Your task to perform on an android device: Show me popular videos on Youtube Image 0: 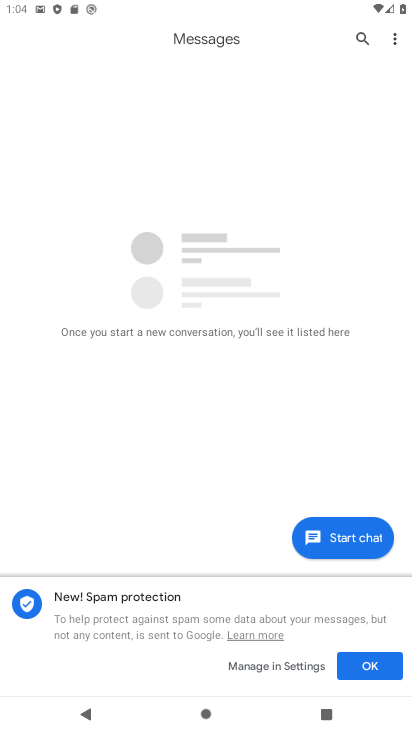
Step 0: press home button
Your task to perform on an android device: Show me popular videos on Youtube Image 1: 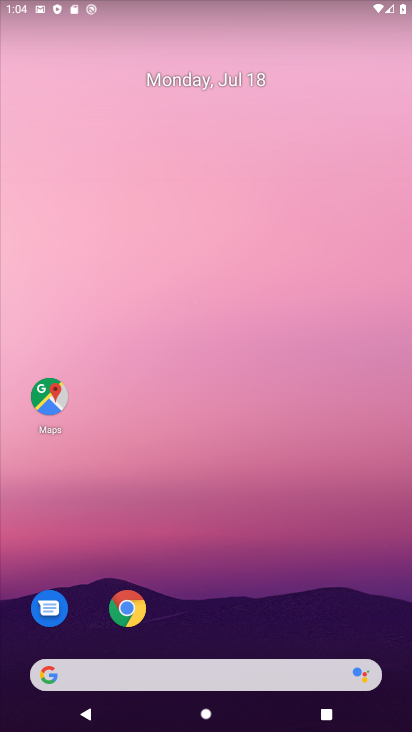
Step 1: drag from (247, 696) to (242, 219)
Your task to perform on an android device: Show me popular videos on Youtube Image 2: 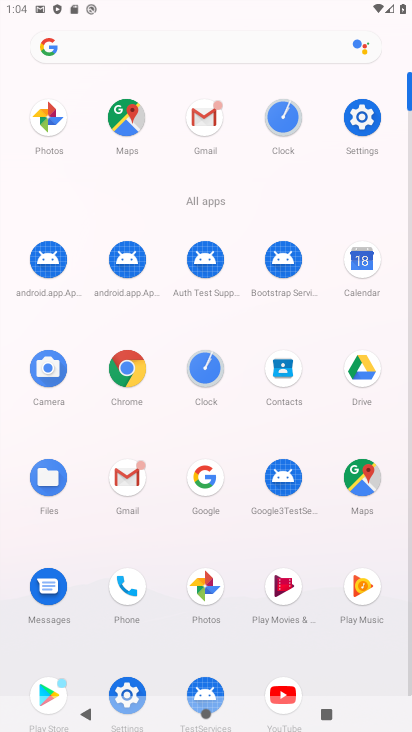
Step 2: click (275, 687)
Your task to perform on an android device: Show me popular videos on Youtube Image 3: 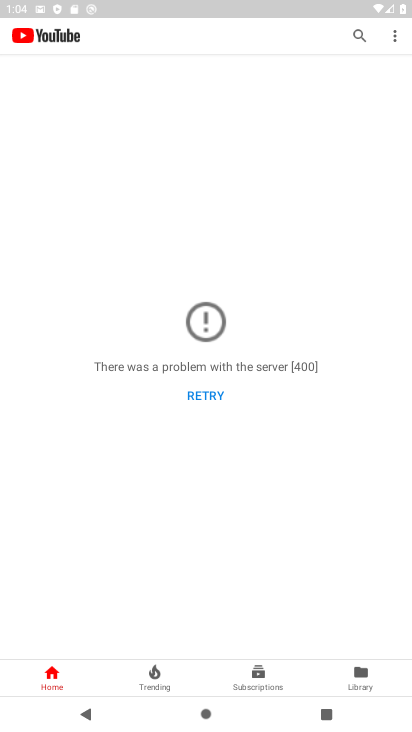
Step 3: click (204, 392)
Your task to perform on an android device: Show me popular videos on Youtube Image 4: 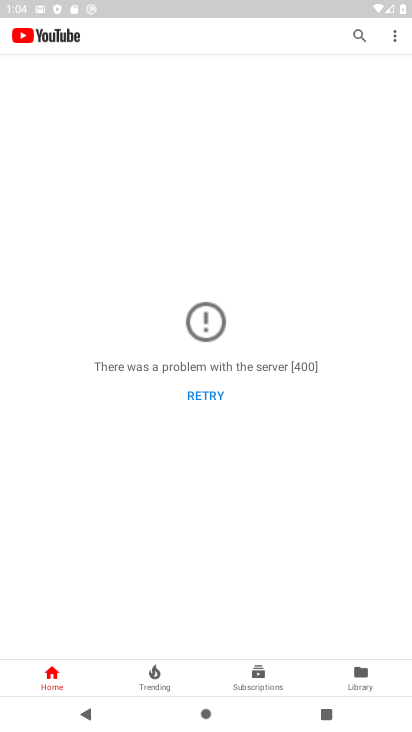
Step 4: task complete